Your task to perform on an android device: Go to Amazon Image 0: 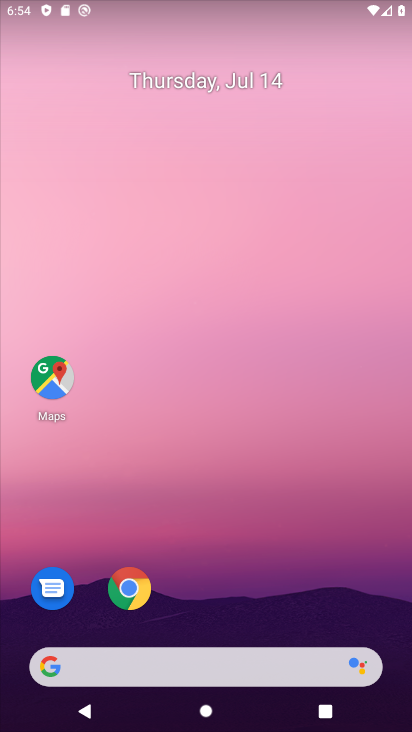
Step 0: drag from (379, 619) to (235, 7)
Your task to perform on an android device: Go to Amazon Image 1: 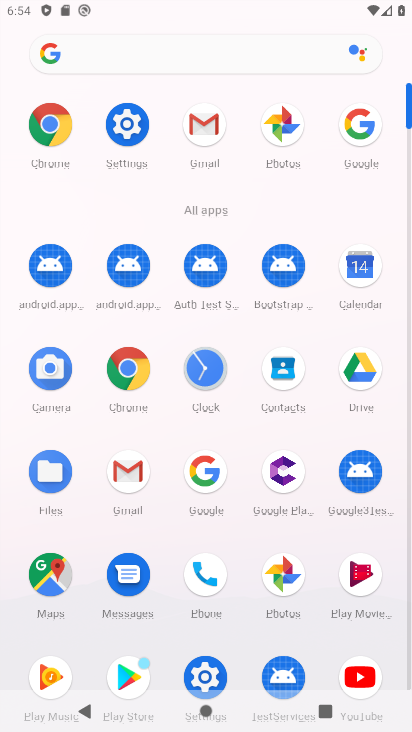
Step 1: click (200, 465)
Your task to perform on an android device: Go to Amazon Image 2: 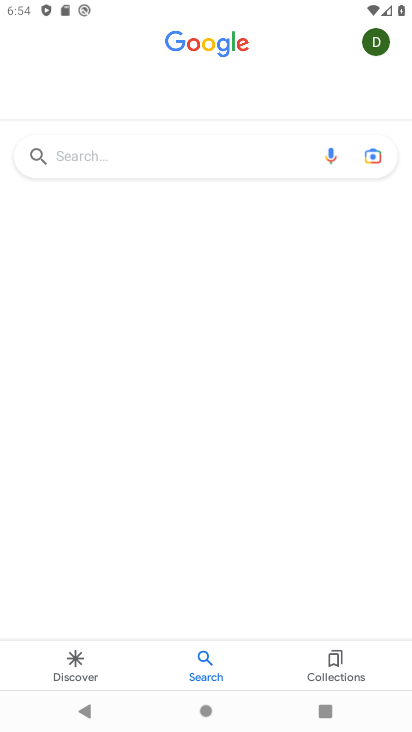
Step 2: click (130, 162)
Your task to perform on an android device: Go to Amazon Image 3: 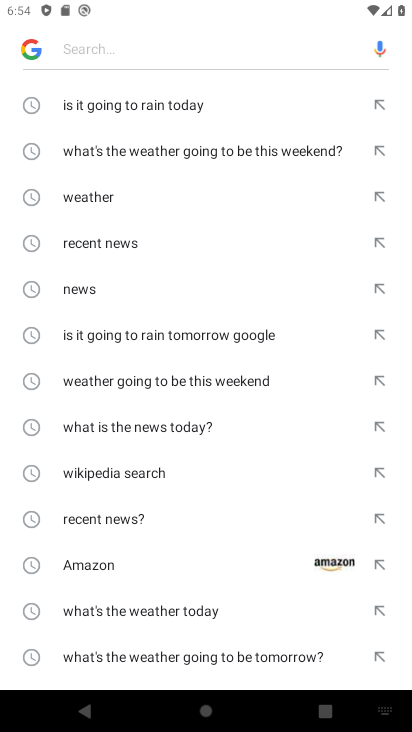
Step 3: click (116, 575)
Your task to perform on an android device: Go to Amazon Image 4: 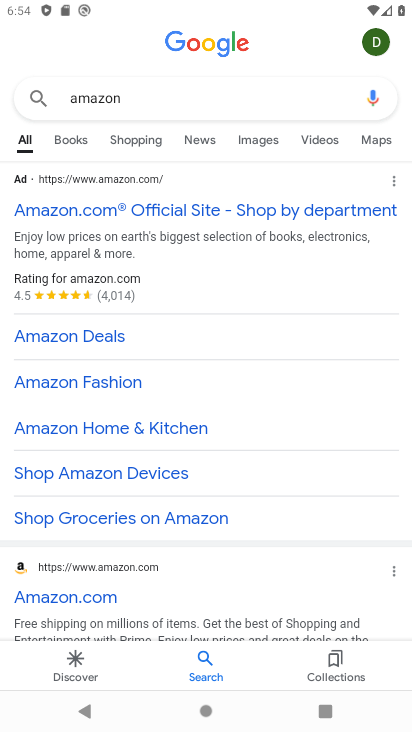
Step 4: task complete